Your task to perform on an android device: turn off airplane mode Image 0: 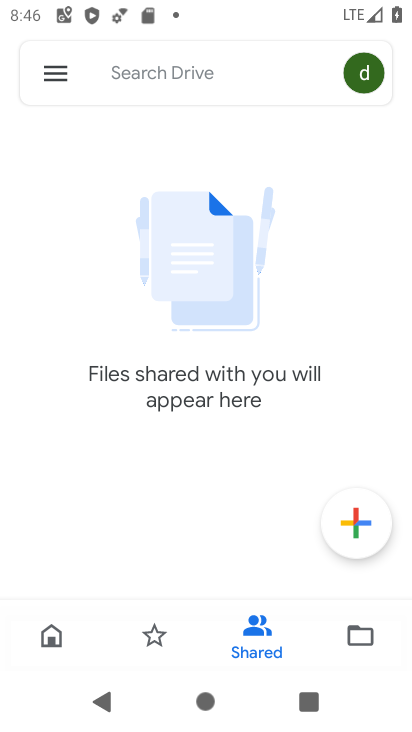
Step 0: press home button
Your task to perform on an android device: turn off airplane mode Image 1: 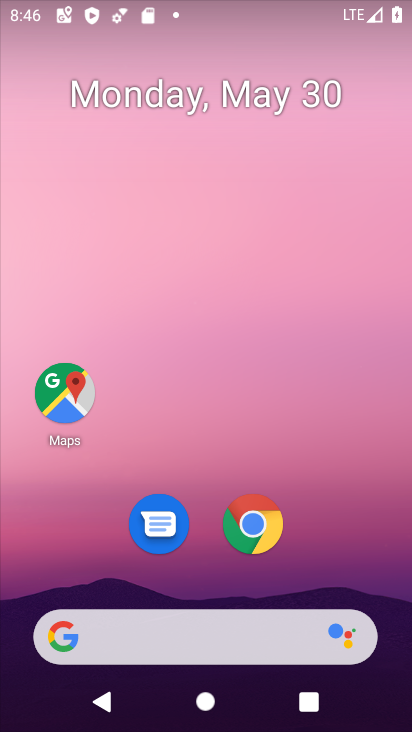
Step 1: drag from (334, 571) to (291, 0)
Your task to perform on an android device: turn off airplane mode Image 2: 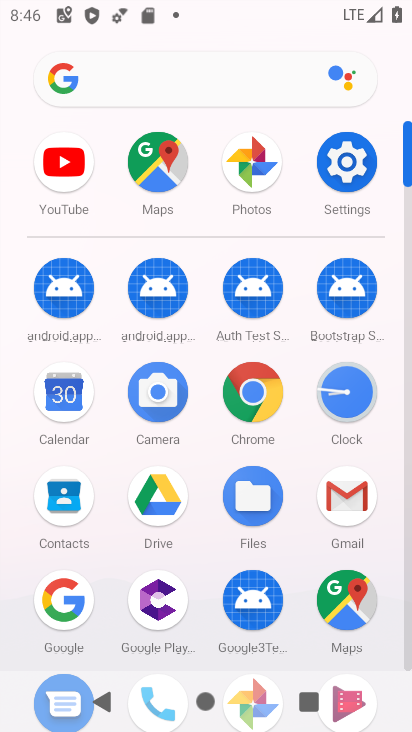
Step 2: click (343, 166)
Your task to perform on an android device: turn off airplane mode Image 3: 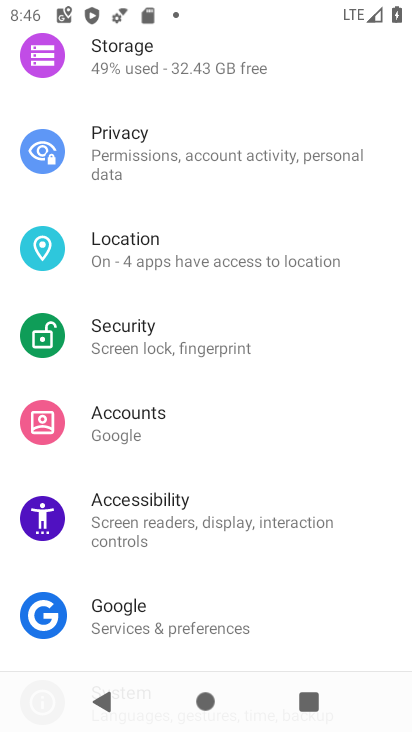
Step 3: drag from (268, 109) to (260, 678)
Your task to perform on an android device: turn off airplane mode Image 4: 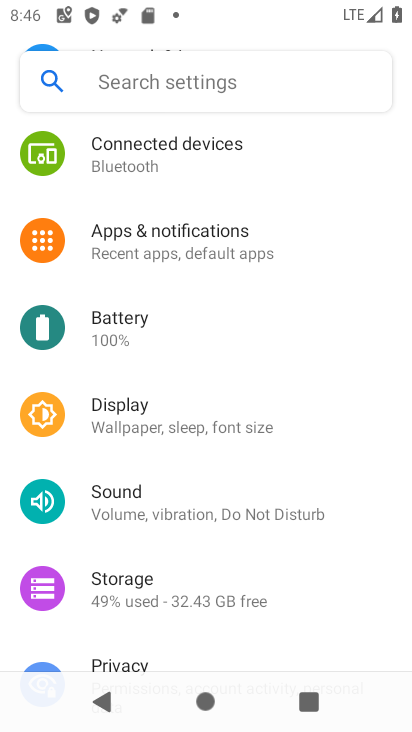
Step 4: drag from (277, 190) to (222, 572)
Your task to perform on an android device: turn off airplane mode Image 5: 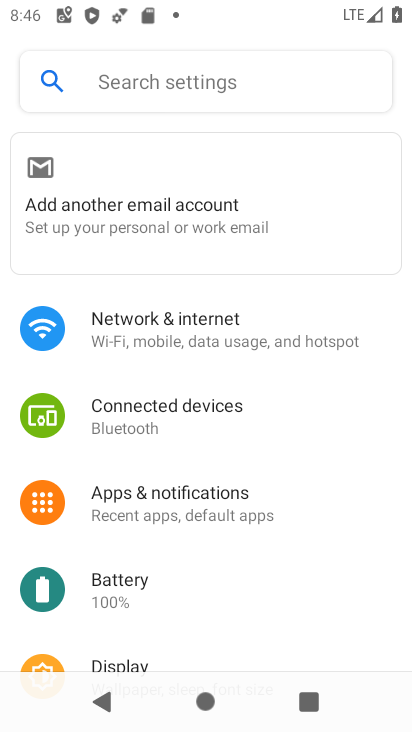
Step 5: click (273, 201)
Your task to perform on an android device: turn off airplane mode Image 6: 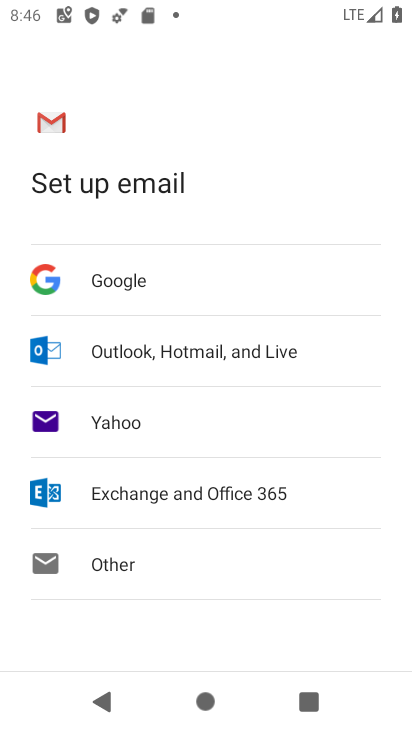
Step 6: press home button
Your task to perform on an android device: turn off airplane mode Image 7: 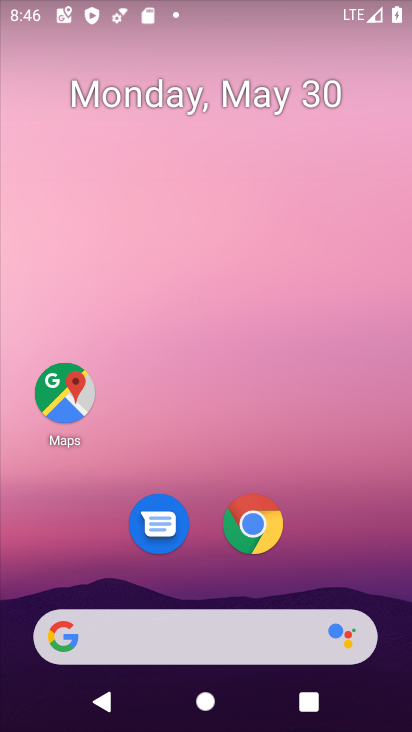
Step 7: drag from (331, 527) to (355, 27)
Your task to perform on an android device: turn off airplane mode Image 8: 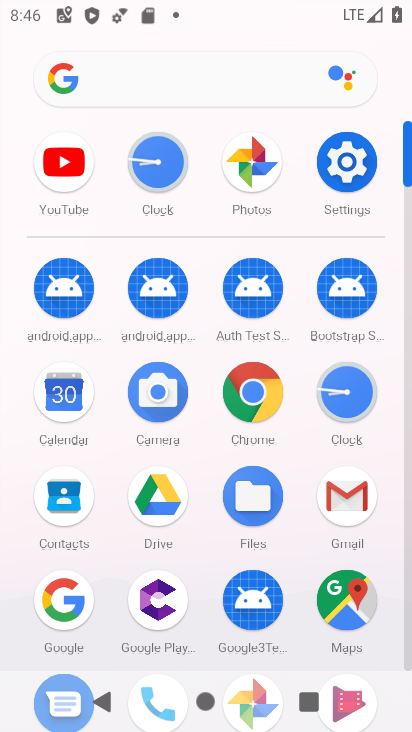
Step 8: click (350, 154)
Your task to perform on an android device: turn off airplane mode Image 9: 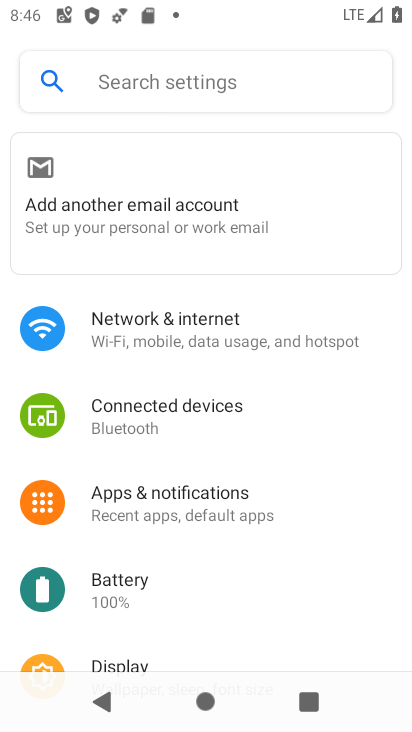
Step 9: click (221, 337)
Your task to perform on an android device: turn off airplane mode Image 10: 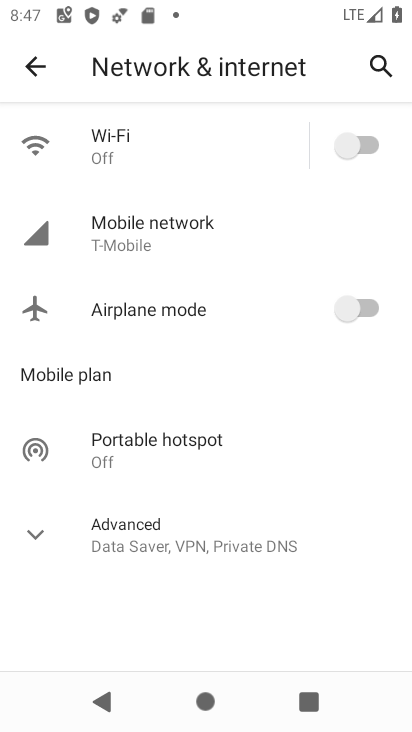
Step 10: task complete